Your task to perform on an android device: Search for dell xps on costco.com, select the first entry, and add it to the cart. Image 0: 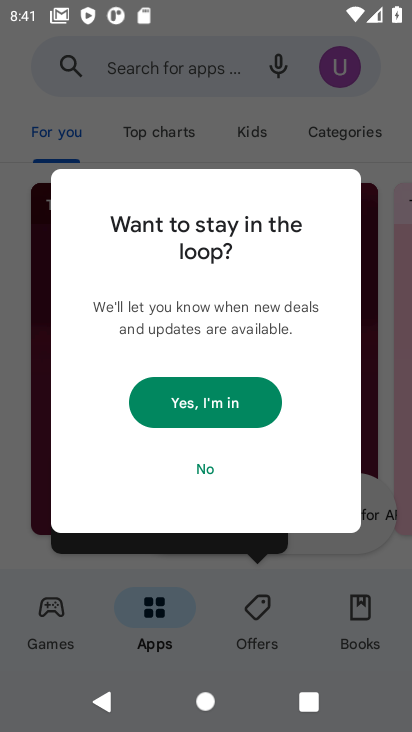
Step 0: press home button
Your task to perform on an android device: Search for dell xps on costco.com, select the first entry, and add it to the cart. Image 1: 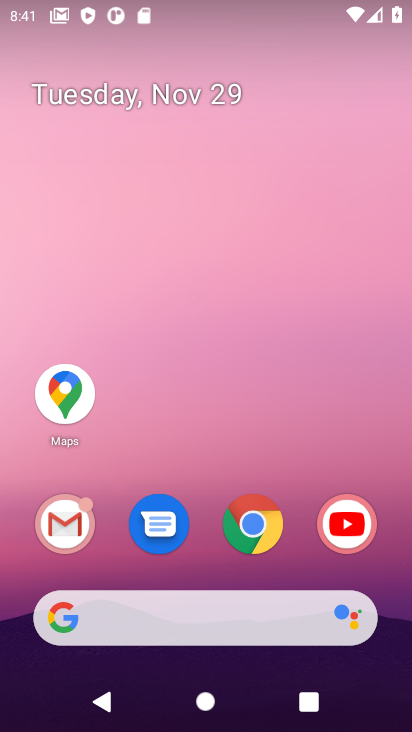
Step 1: click (250, 527)
Your task to perform on an android device: Search for dell xps on costco.com, select the first entry, and add it to the cart. Image 2: 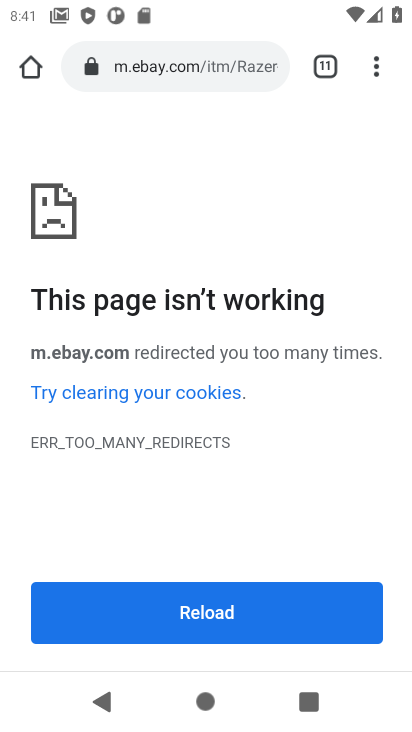
Step 2: click (158, 67)
Your task to perform on an android device: Search for dell xps on costco.com, select the first entry, and add it to the cart. Image 3: 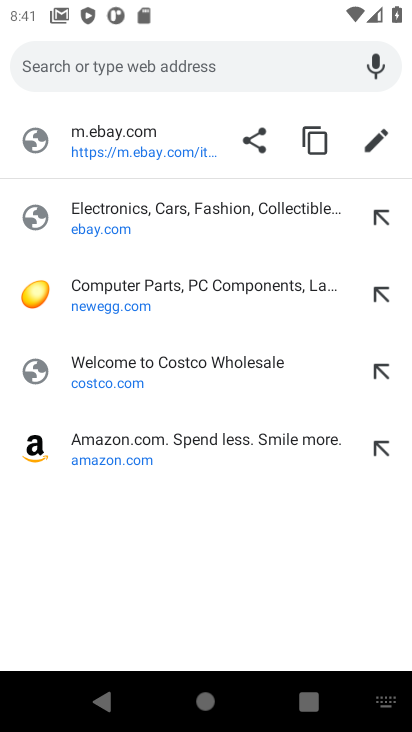
Step 3: click (89, 369)
Your task to perform on an android device: Search for dell xps on costco.com, select the first entry, and add it to the cart. Image 4: 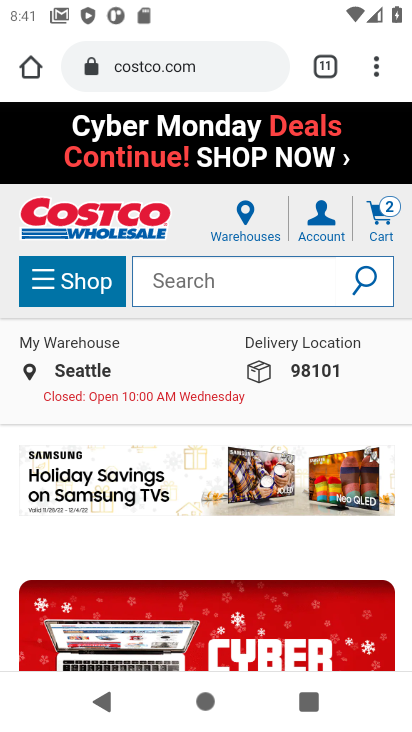
Step 4: click (161, 286)
Your task to perform on an android device: Search for dell xps on costco.com, select the first entry, and add it to the cart. Image 5: 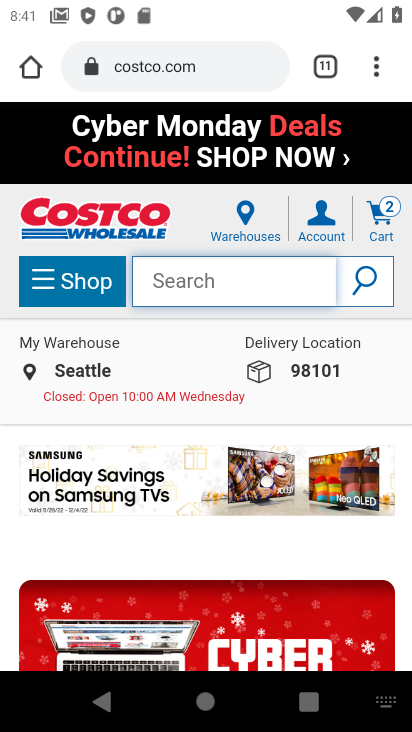
Step 5: type "dell xps"
Your task to perform on an android device: Search for dell xps on costco.com, select the first entry, and add it to the cart. Image 6: 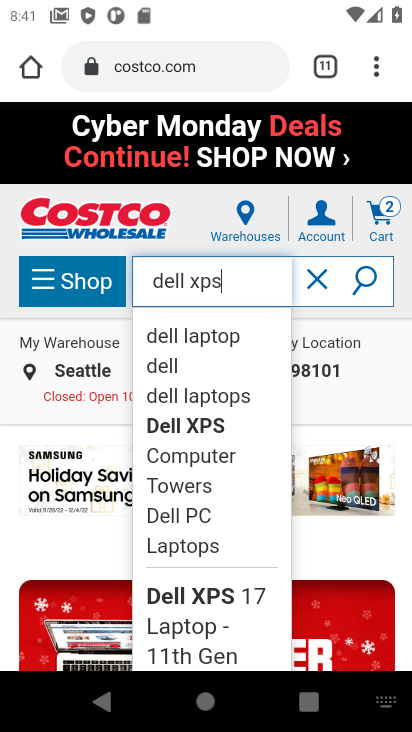
Step 6: click (359, 278)
Your task to perform on an android device: Search for dell xps on costco.com, select the first entry, and add it to the cart. Image 7: 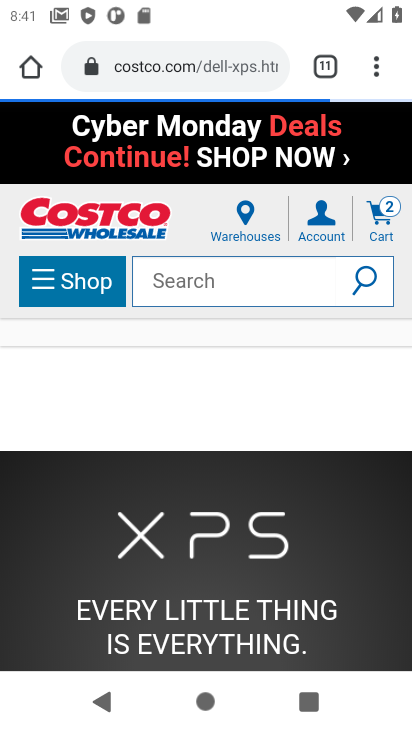
Step 7: task complete